Your task to perform on an android device: toggle priority inbox in the gmail app Image 0: 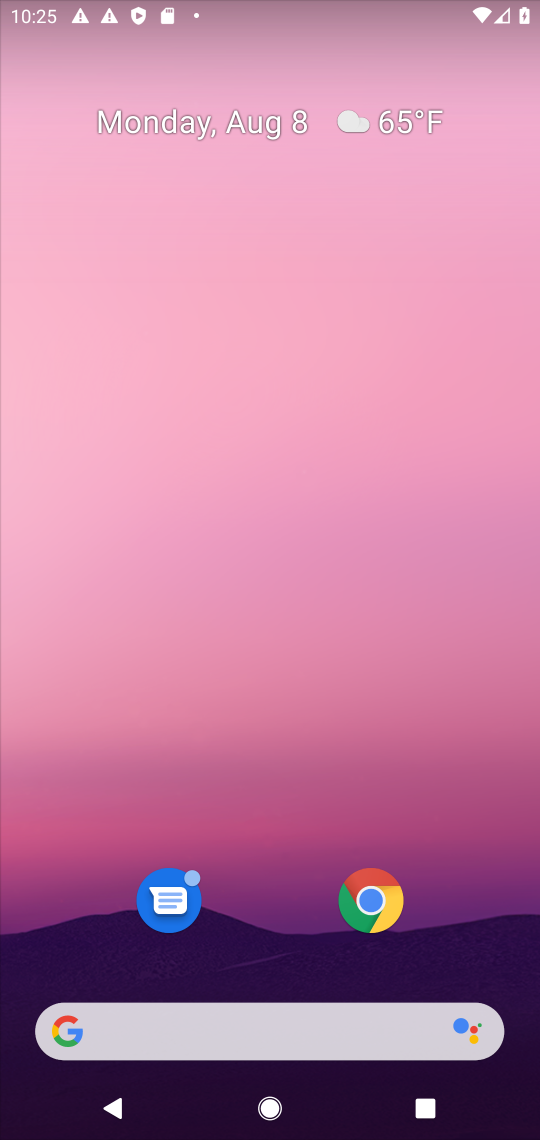
Step 0: drag from (229, 897) to (229, 2)
Your task to perform on an android device: toggle priority inbox in the gmail app Image 1: 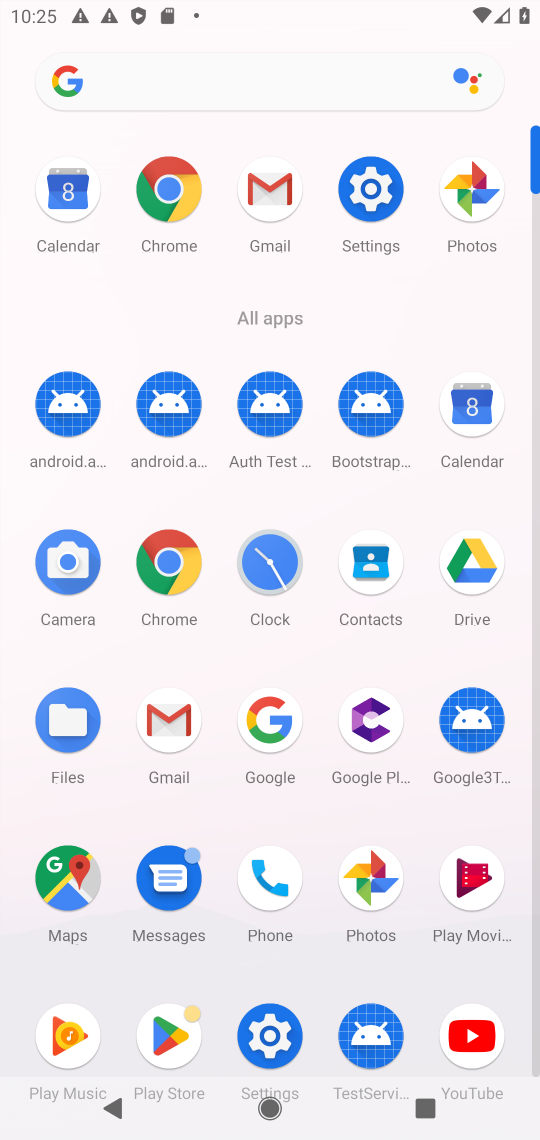
Step 1: click (265, 273)
Your task to perform on an android device: toggle priority inbox in the gmail app Image 2: 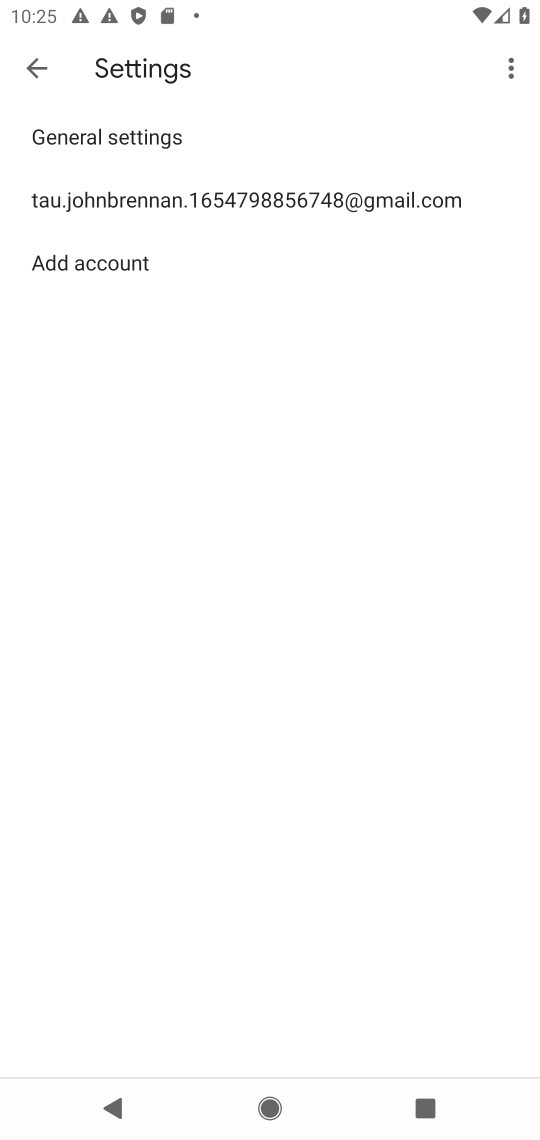
Step 2: click (224, 190)
Your task to perform on an android device: toggle priority inbox in the gmail app Image 3: 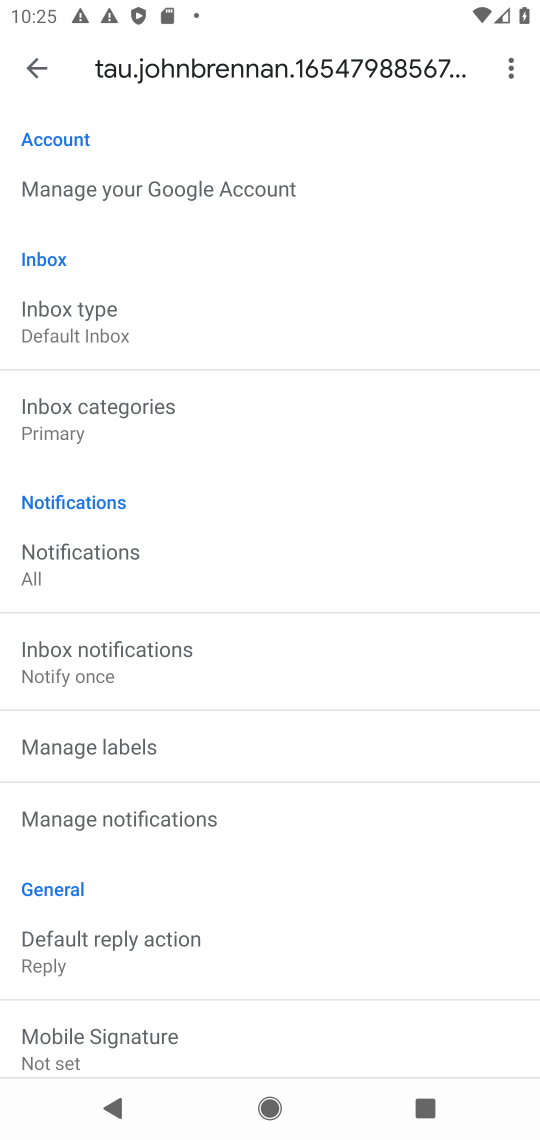
Step 3: click (95, 327)
Your task to perform on an android device: toggle priority inbox in the gmail app Image 4: 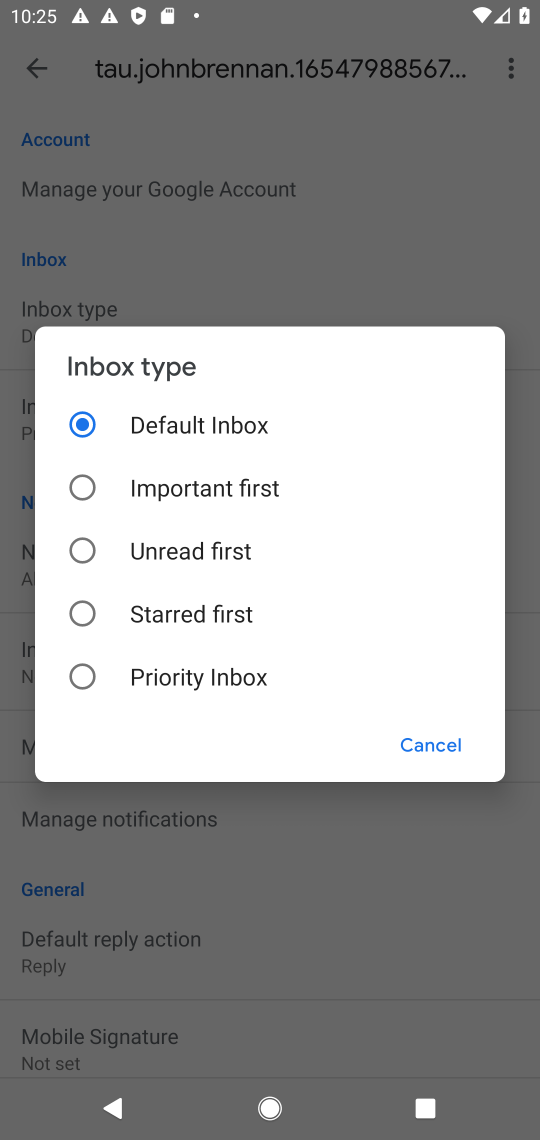
Step 4: click (82, 668)
Your task to perform on an android device: toggle priority inbox in the gmail app Image 5: 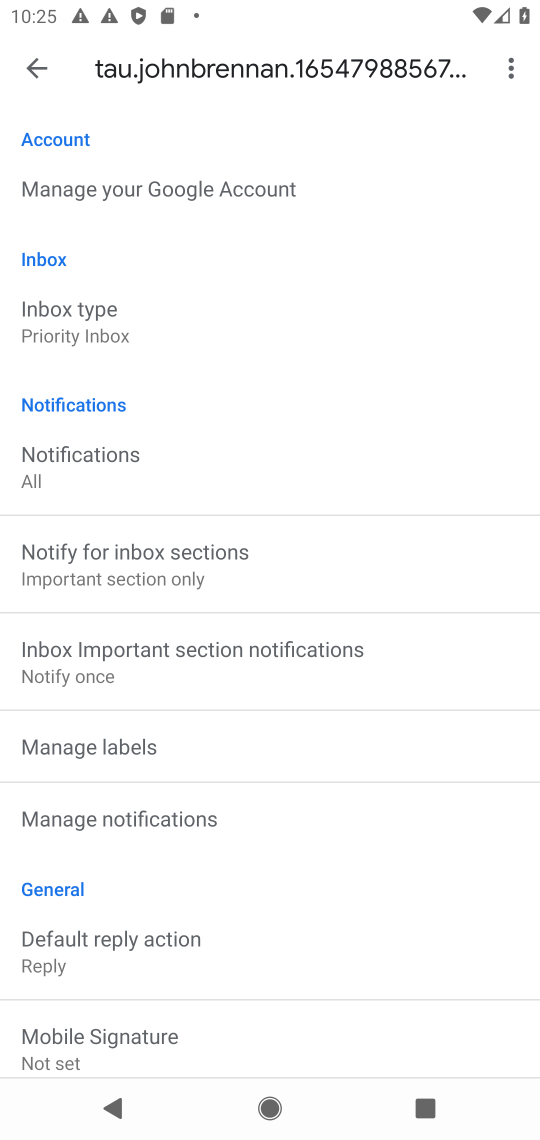
Step 5: task complete